Your task to perform on an android device: toggle show notifications on the lock screen Image 0: 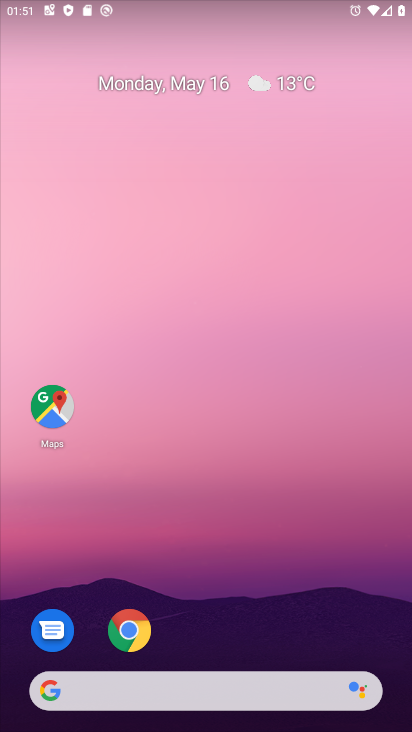
Step 0: drag from (237, 527) to (411, 53)
Your task to perform on an android device: toggle show notifications on the lock screen Image 1: 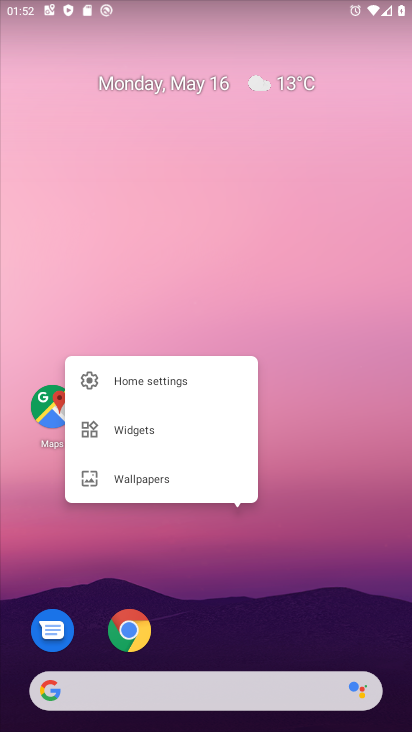
Step 1: press back button
Your task to perform on an android device: toggle show notifications on the lock screen Image 2: 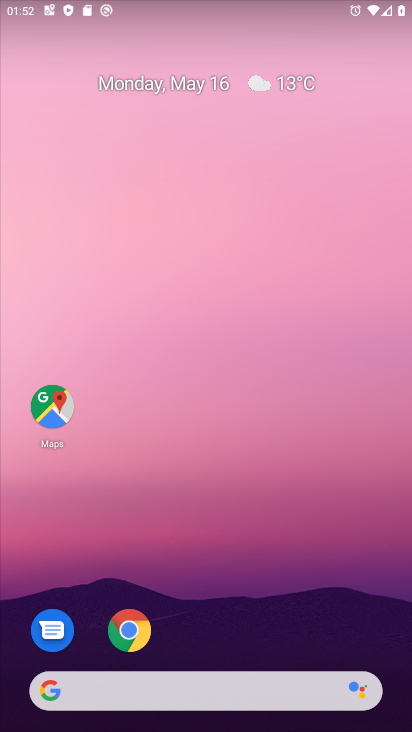
Step 2: drag from (174, 557) to (344, 0)
Your task to perform on an android device: toggle show notifications on the lock screen Image 3: 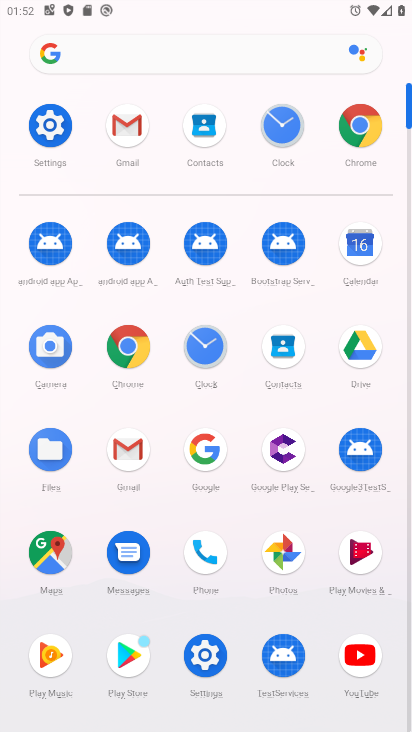
Step 3: click (36, 126)
Your task to perform on an android device: toggle show notifications on the lock screen Image 4: 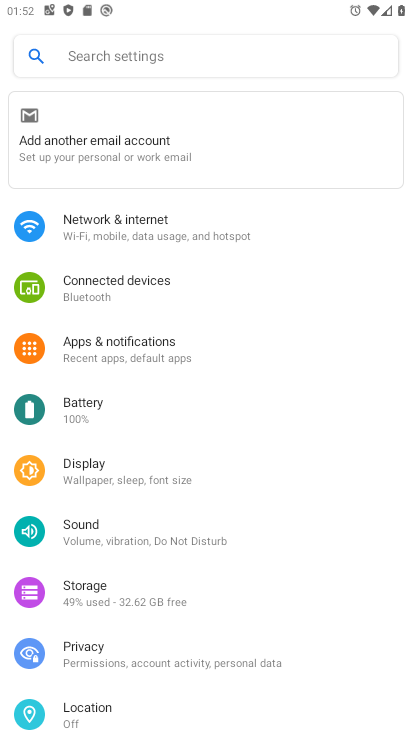
Step 4: click (101, 484)
Your task to perform on an android device: toggle show notifications on the lock screen Image 5: 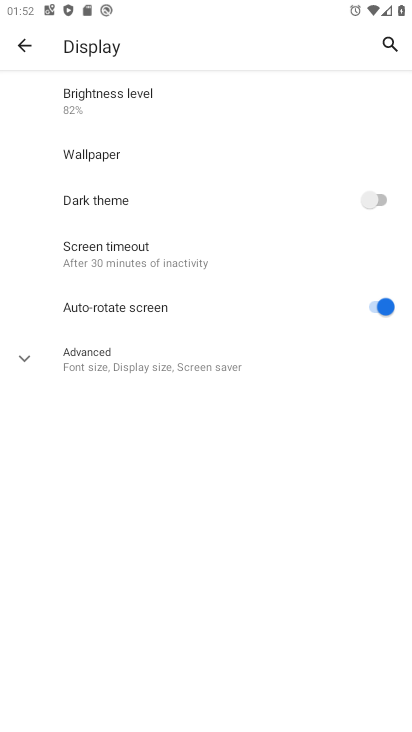
Step 5: click (161, 350)
Your task to perform on an android device: toggle show notifications on the lock screen Image 6: 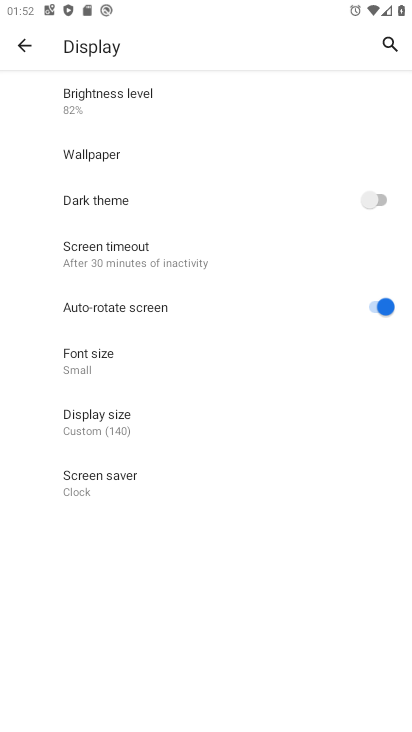
Step 6: task complete